Your task to perform on an android device: Go to eBay Image 0: 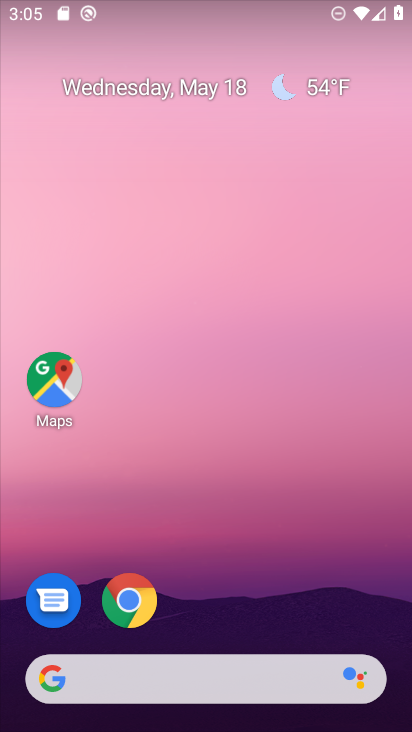
Step 0: click (130, 583)
Your task to perform on an android device: Go to eBay Image 1: 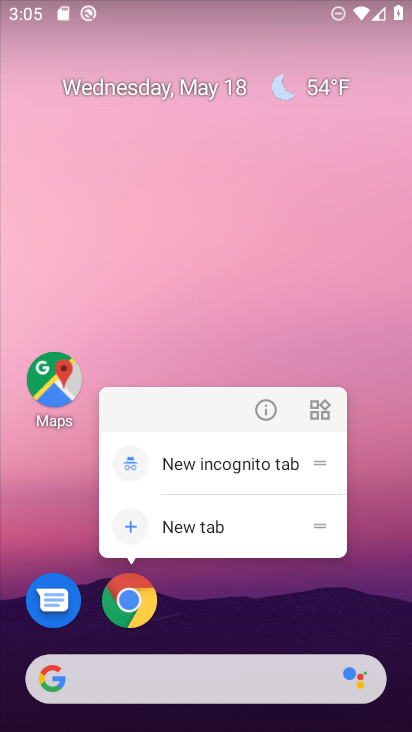
Step 1: click (162, 677)
Your task to perform on an android device: Go to eBay Image 2: 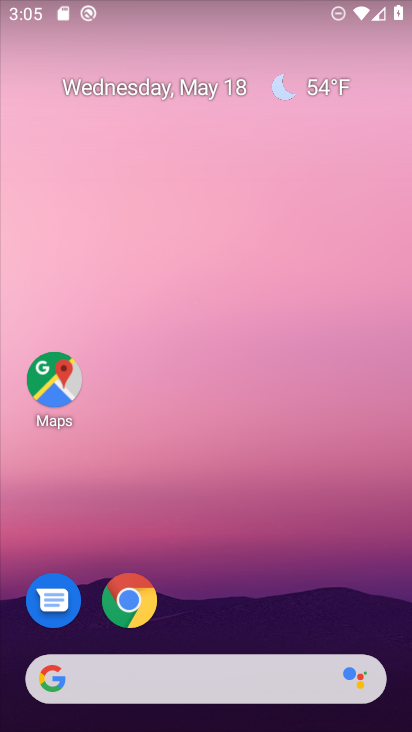
Step 2: click (143, 676)
Your task to perform on an android device: Go to eBay Image 3: 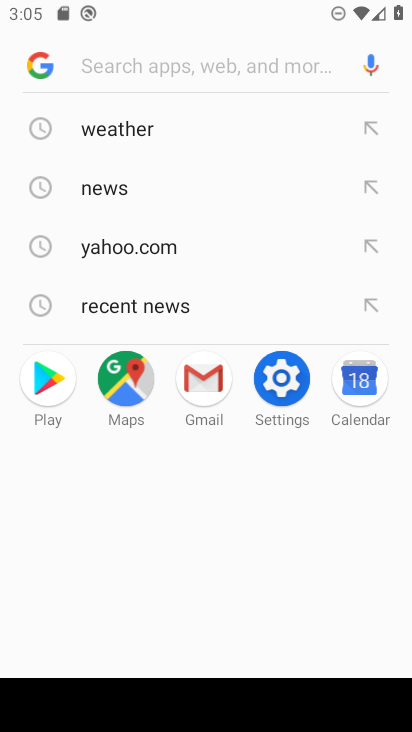
Step 3: type "eBay"
Your task to perform on an android device: Go to eBay Image 4: 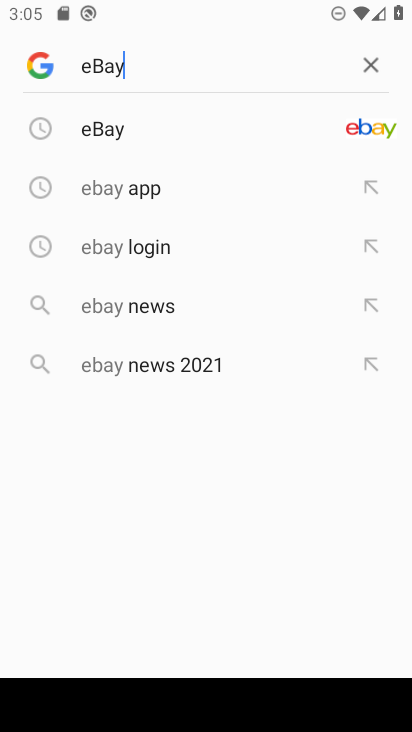
Step 4: click (147, 123)
Your task to perform on an android device: Go to eBay Image 5: 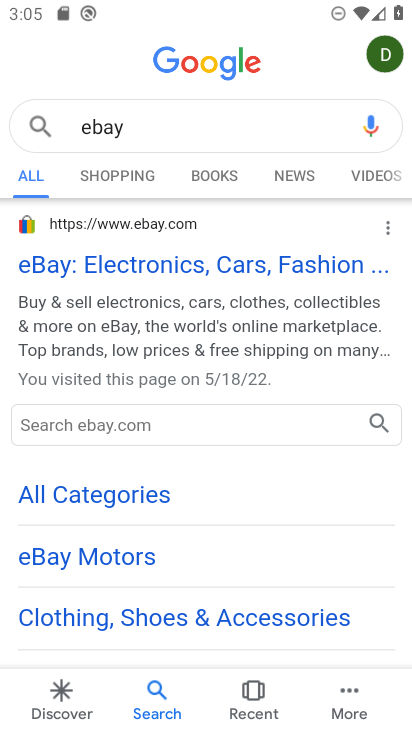
Step 5: task complete